Your task to perform on an android device: toggle pop-ups in chrome Image 0: 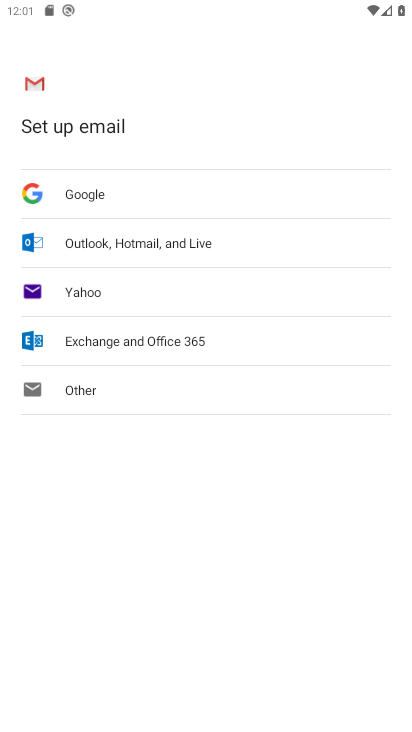
Step 0: drag from (226, 548) to (248, 343)
Your task to perform on an android device: toggle pop-ups in chrome Image 1: 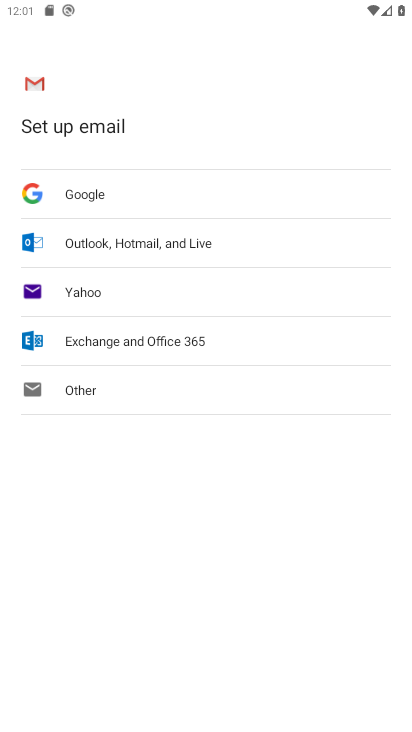
Step 1: press home button
Your task to perform on an android device: toggle pop-ups in chrome Image 2: 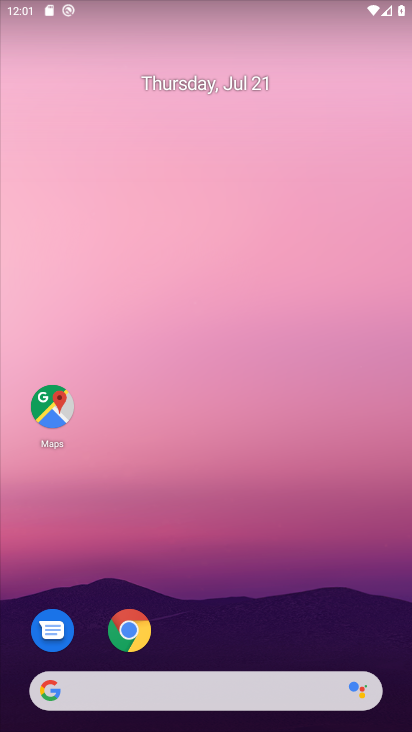
Step 2: drag from (236, 568) to (231, 197)
Your task to perform on an android device: toggle pop-ups in chrome Image 3: 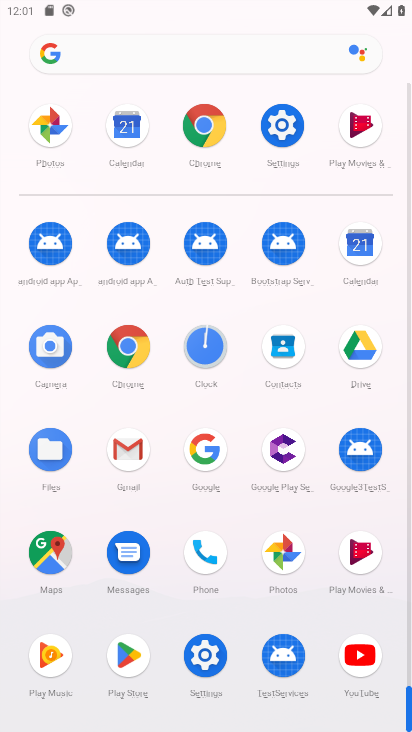
Step 3: click (202, 115)
Your task to perform on an android device: toggle pop-ups in chrome Image 4: 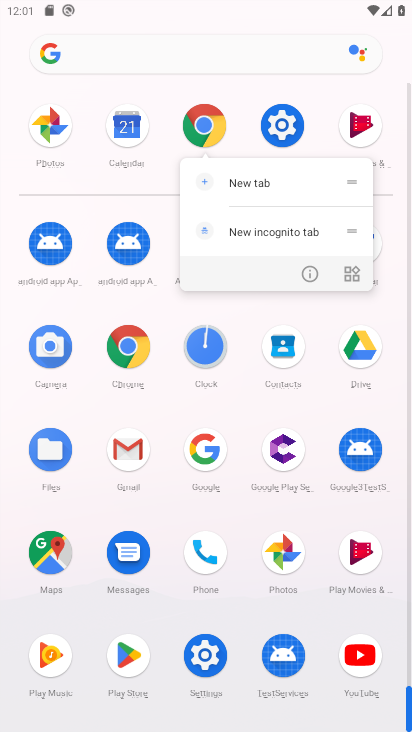
Step 4: click (302, 272)
Your task to perform on an android device: toggle pop-ups in chrome Image 5: 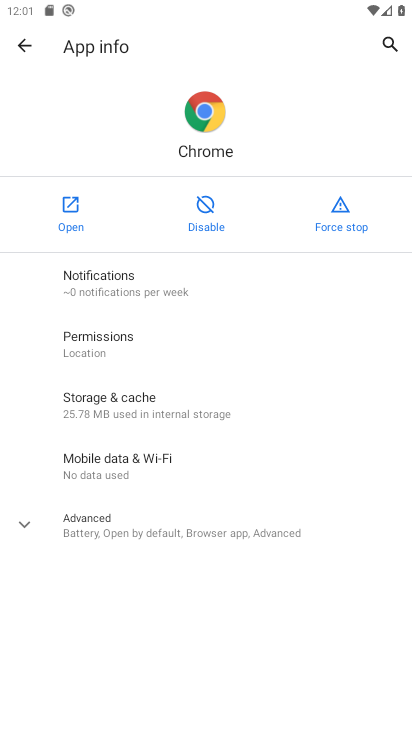
Step 5: click (67, 233)
Your task to perform on an android device: toggle pop-ups in chrome Image 6: 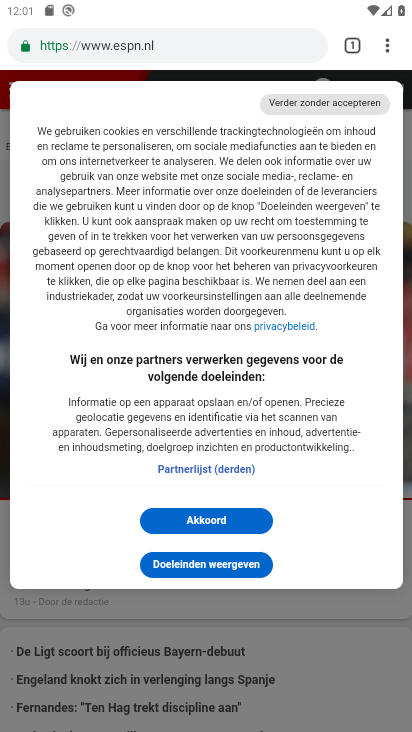
Step 6: drag from (386, 45) to (242, 547)
Your task to perform on an android device: toggle pop-ups in chrome Image 7: 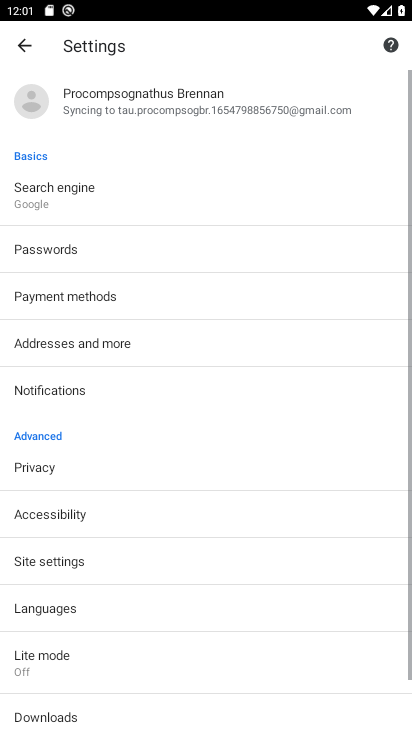
Step 7: drag from (269, 525) to (282, 95)
Your task to perform on an android device: toggle pop-ups in chrome Image 8: 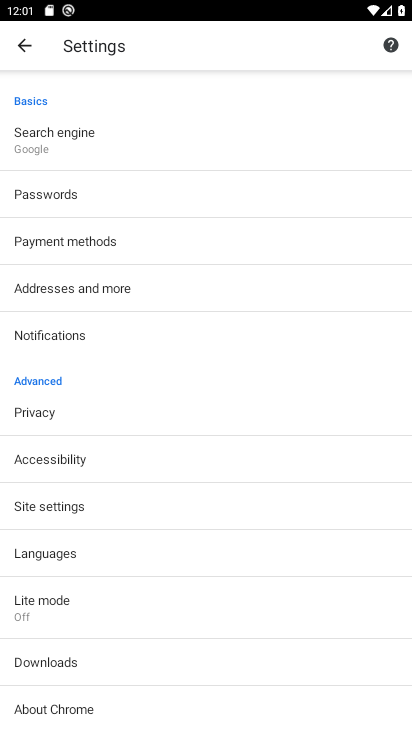
Step 8: click (53, 508)
Your task to perform on an android device: toggle pop-ups in chrome Image 9: 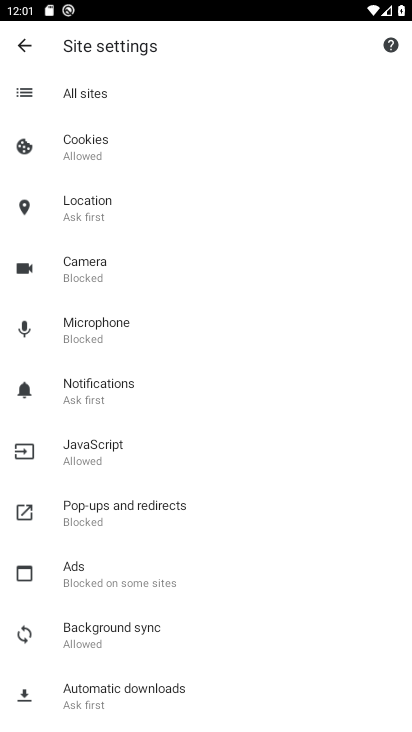
Step 9: click (113, 508)
Your task to perform on an android device: toggle pop-ups in chrome Image 10: 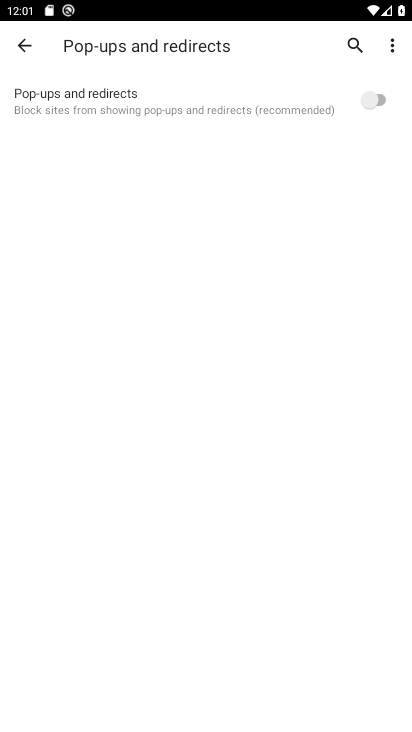
Step 10: drag from (270, 414) to (313, 115)
Your task to perform on an android device: toggle pop-ups in chrome Image 11: 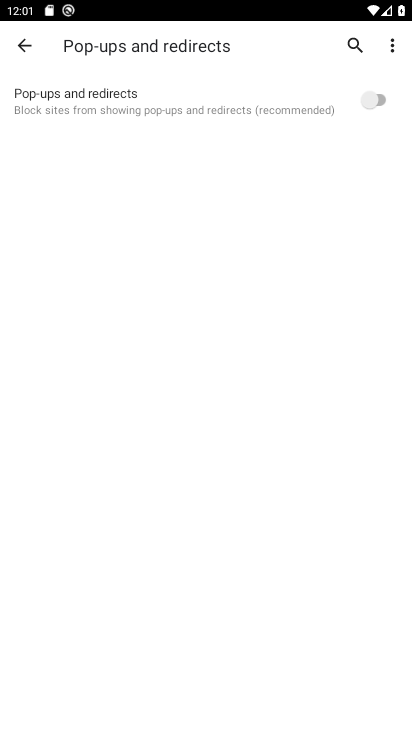
Step 11: drag from (269, 550) to (263, 295)
Your task to perform on an android device: toggle pop-ups in chrome Image 12: 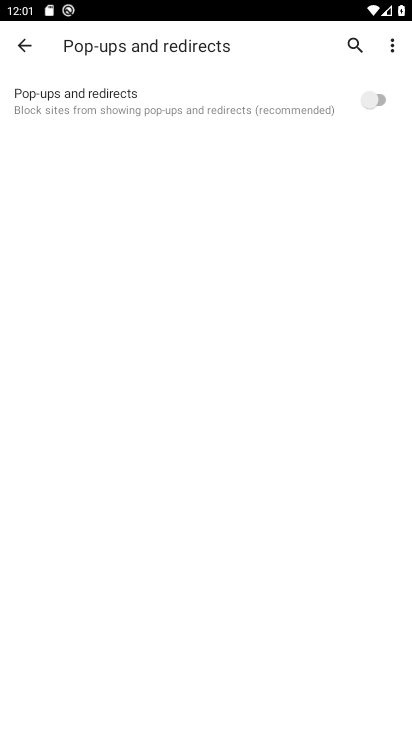
Step 12: click (235, 105)
Your task to perform on an android device: toggle pop-ups in chrome Image 13: 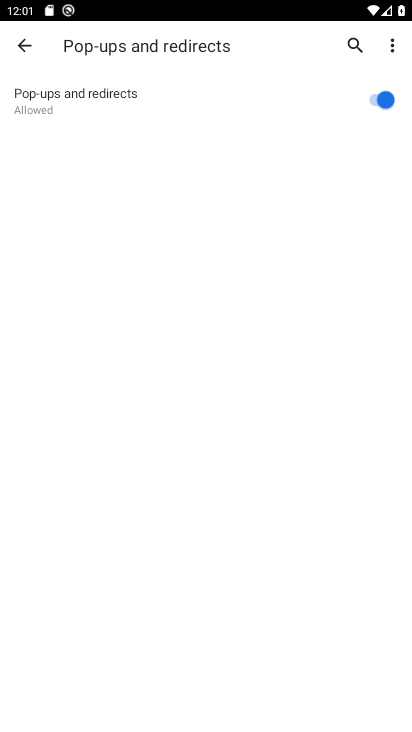
Step 13: task complete